Your task to perform on an android device: open app "Yahoo Mail" (install if not already installed) and go to login screen Image 0: 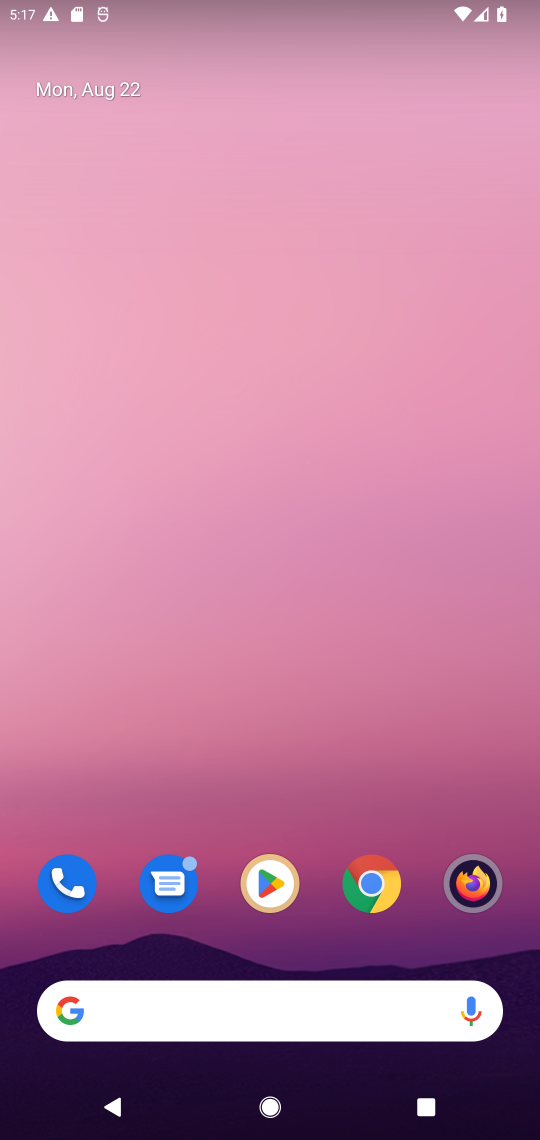
Step 0: drag from (293, 686) to (293, 331)
Your task to perform on an android device: open app "Yahoo Mail" (install if not already installed) and go to login screen Image 1: 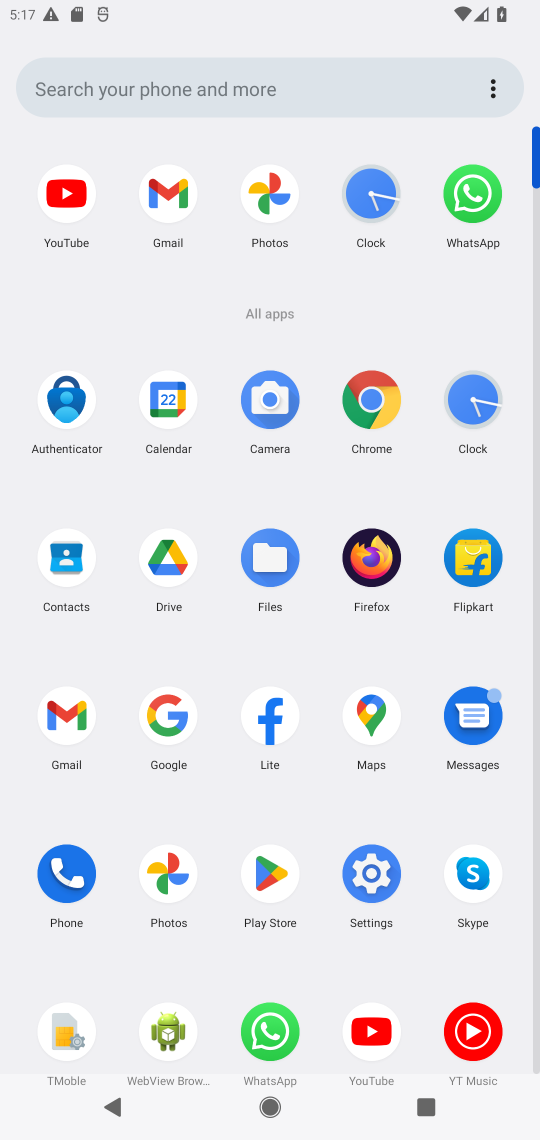
Step 1: click (275, 882)
Your task to perform on an android device: open app "Yahoo Mail" (install if not already installed) and go to login screen Image 2: 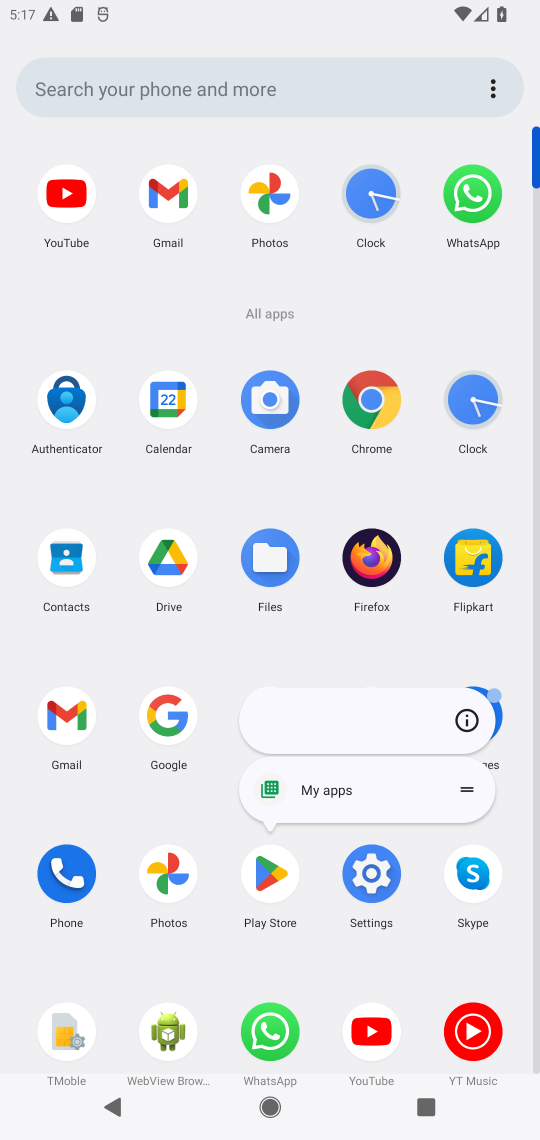
Step 2: click (258, 883)
Your task to perform on an android device: open app "Yahoo Mail" (install if not already installed) and go to login screen Image 3: 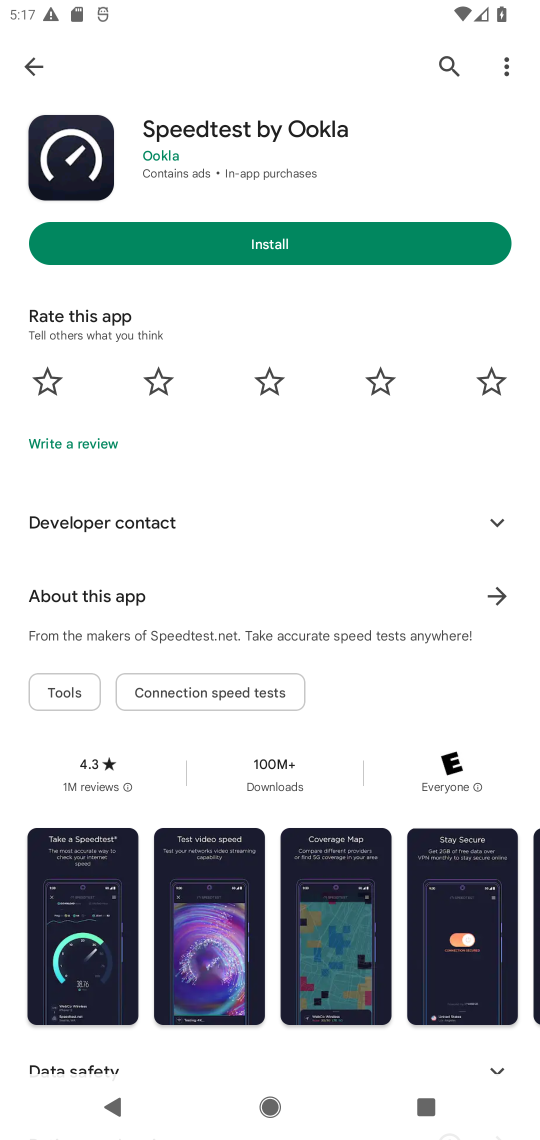
Step 3: click (441, 67)
Your task to perform on an android device: open app "Yahoo Mail" (install if not already installed) and go to login screen Image 4: 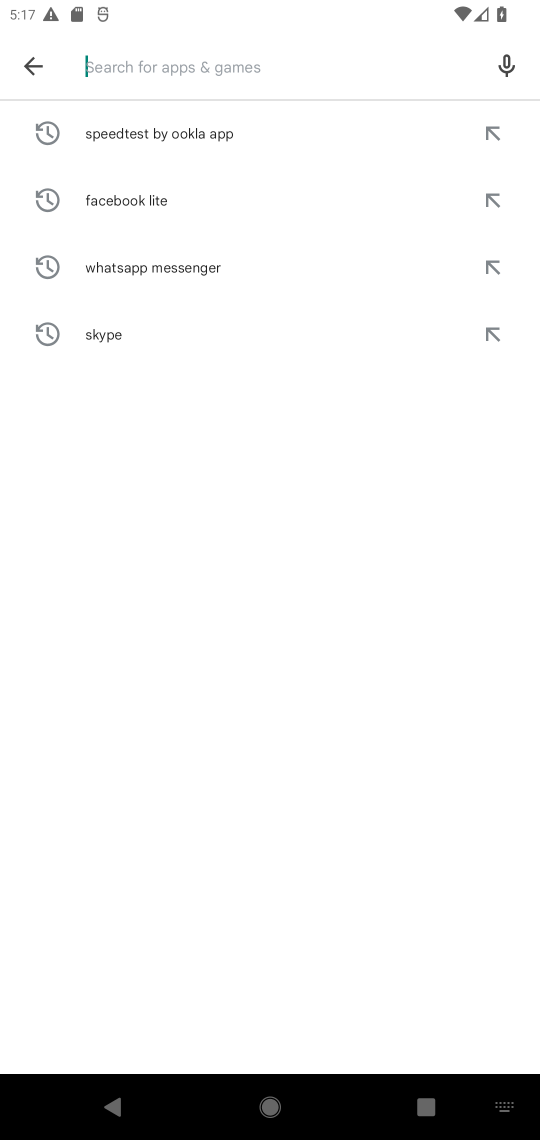
Step 4: type "Yahoo Mail"
Your task to perform on an android device: open app "Yahoo Mail" (install if not already installed) and go to login screen Image 5: 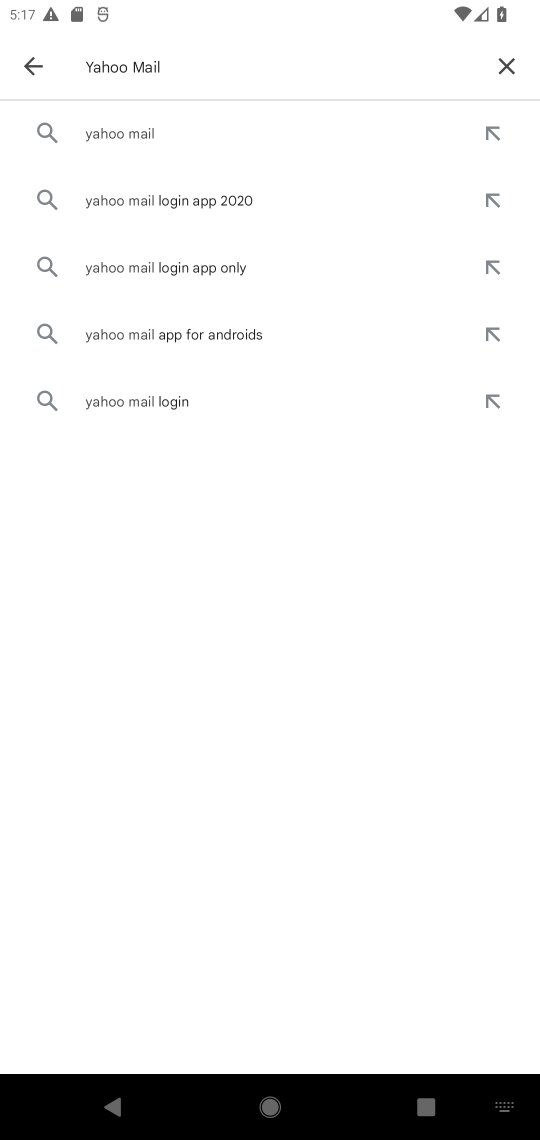
Step 5: click (121, 124)
Your task to perform on an android device: open app "Yahoo Mail" (install if not already installed) and go to login screen Image 6: 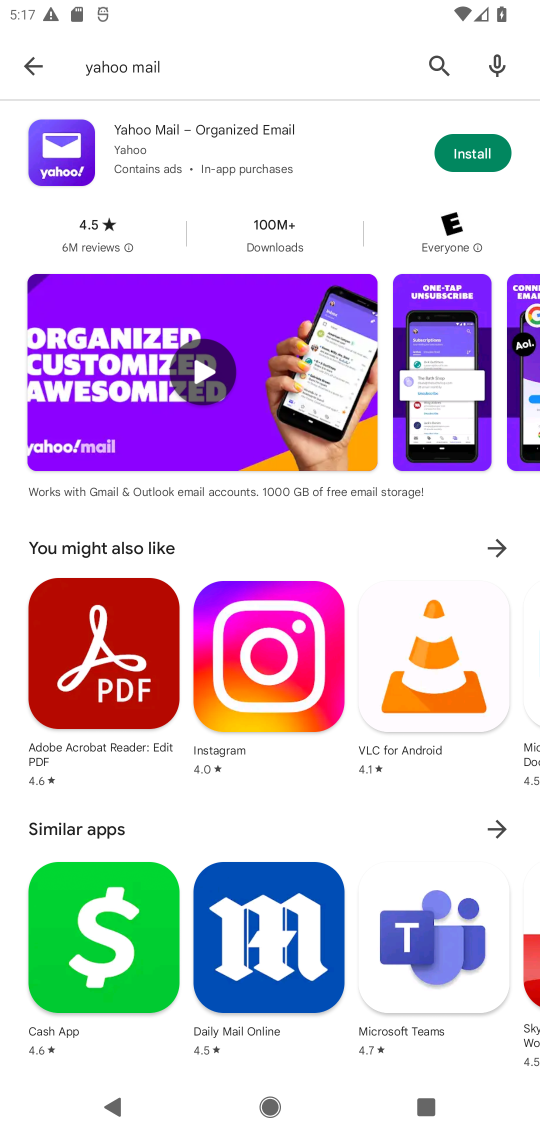
Step 6: click (473, 157)
Your task to perform on an android device: open app "Yahoo Mail" (install if not already installed) and go to login screen Image 7: 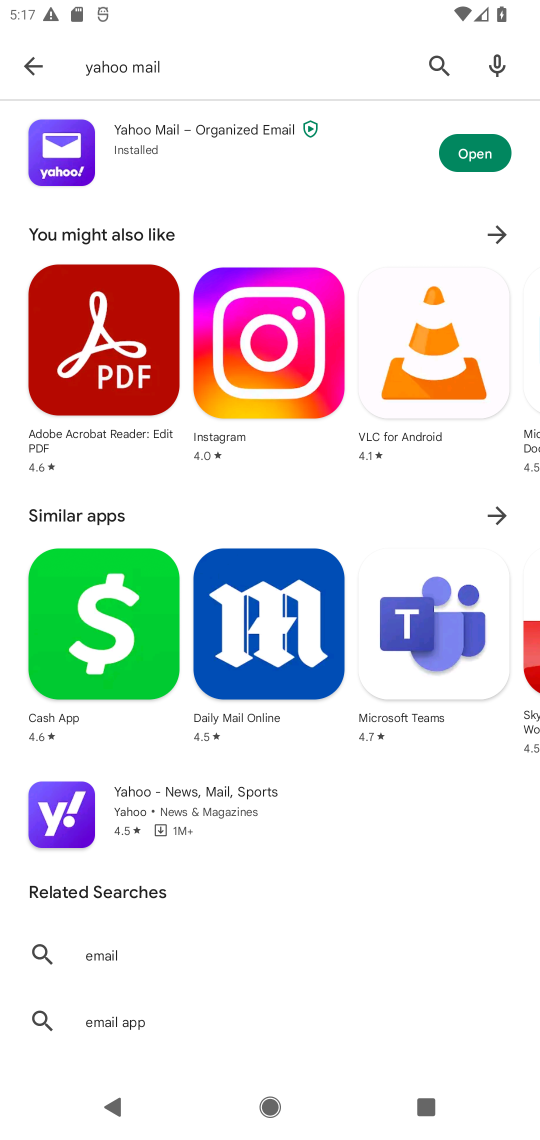
Step 7: click (472, 154)
Your task to perform on an android device: open app "Yahoo Mail" (install if not already installed) and go to login screen Image 8: 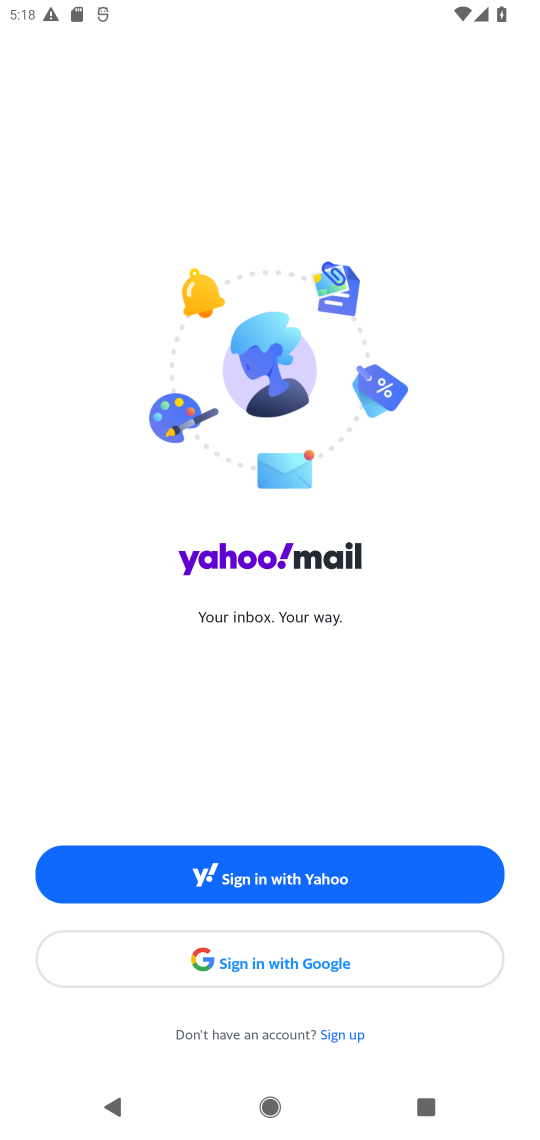
Step 8: click (237, 882)
Your task to perform on an android device: open app "Yahoo Mail" (install if not already installed) and go to login screen Image 9: 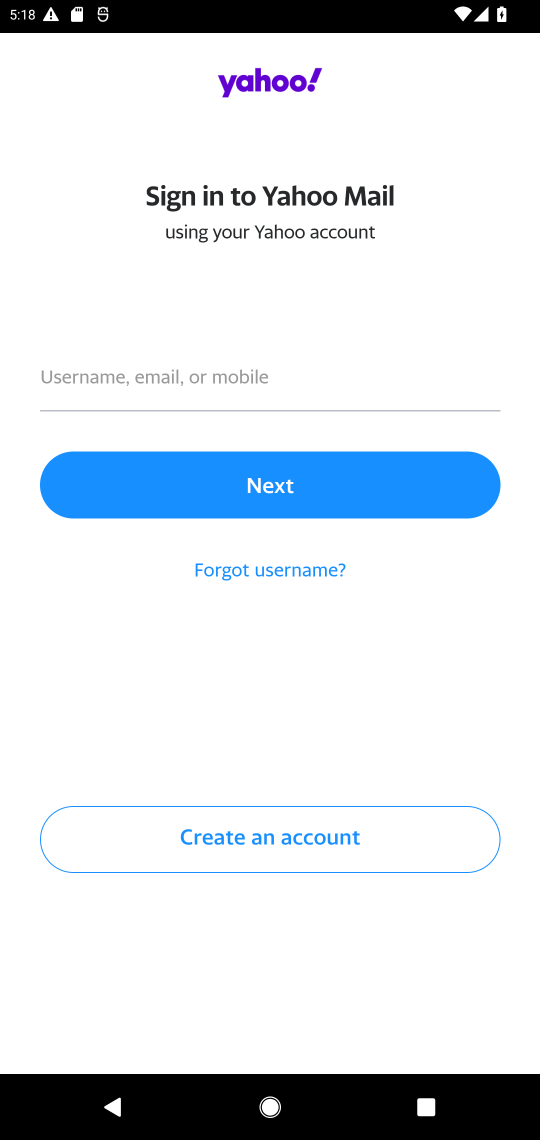
Step 9: task complete